Your task to perform on an android device: turn off notifications settings in the gmail app Image 0: 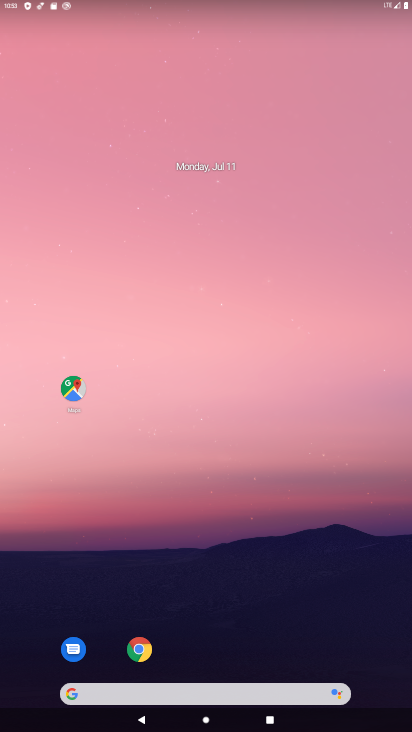
Step 0: drag from (308, 557) to (271, 115)
Your task to perform on an android device: turn off notifications settings in the gmail app Image 1: 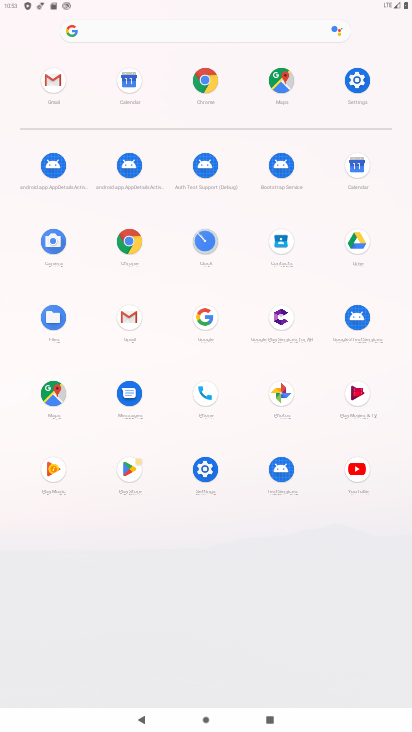
Step 1: click (57, 80)
Your task to perform on an android device: turn off notifications settings in the gmail app Image 2: 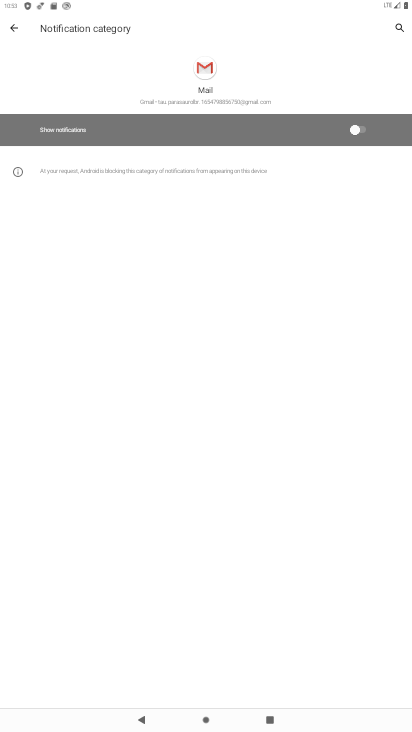
Step 2: click (11, 23)
Your task to perform on an android device: turn off notifications settings in the gmail app Image 3: 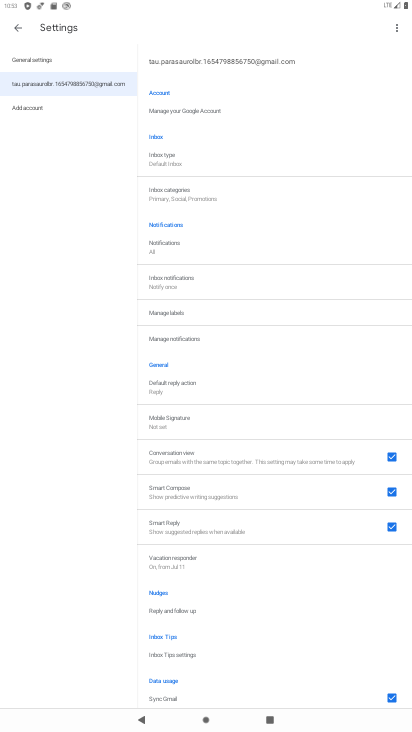
Step 3: click (191, 339)
Your task to perform on an android device: turn off notifications settings in the gmail app Image 4: 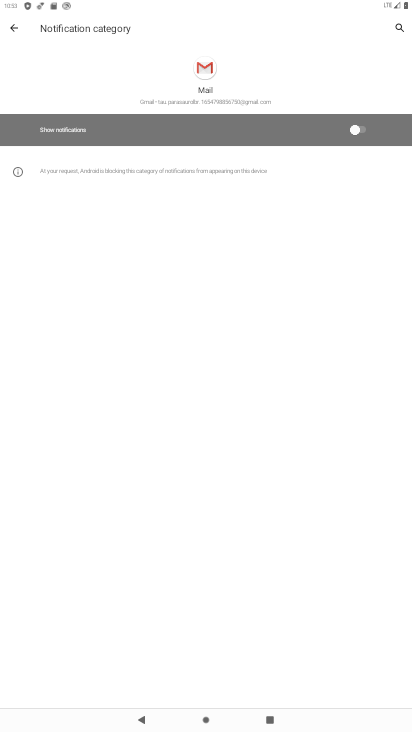
Step 4: task complete